Your task to perform on an android device: delete browsing data in the chrome app Image 0: 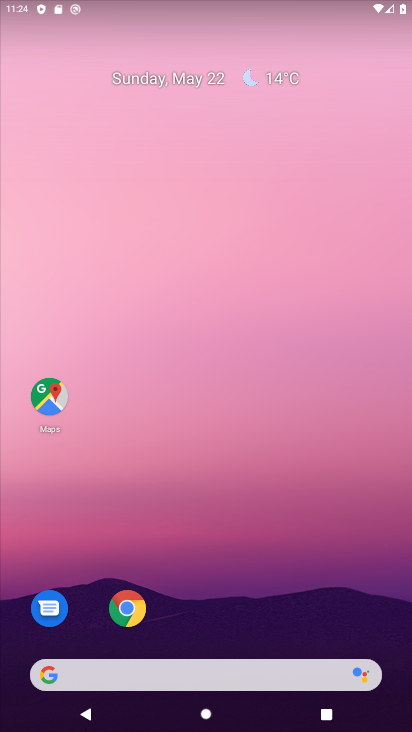
Step 0: drag from (288, 597) to (209, 37)
Your task to perform on an android device: delete browsing data in the chrome app Image 1: 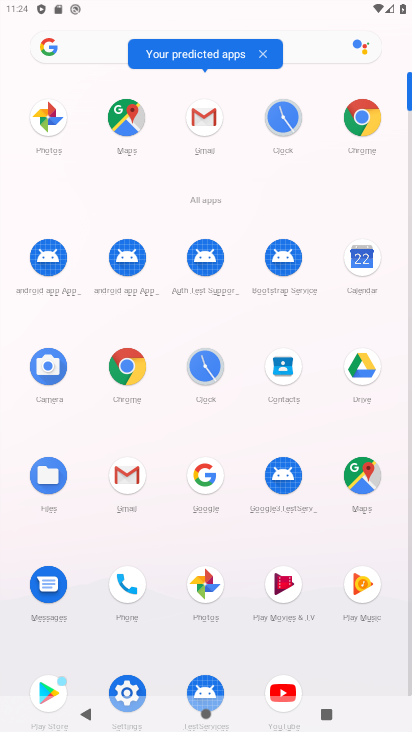
Step 1: click (363, 130)
Your task to perform on an android device: delete browsing data in the chrome app Image 2: 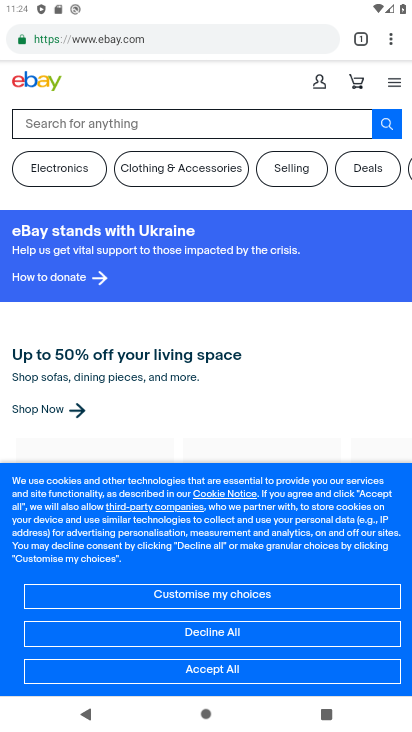
Step 2: click (397, 36)
Your task to perform on an android device: delete browsing data in the chrome app Image 3: 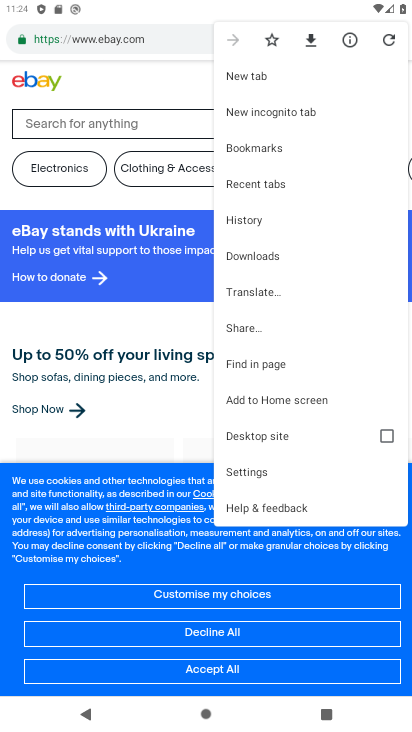
Step 3: click (279, 219)
Your task to perform on an android device: delete browsing data in the chrome app Image 4: 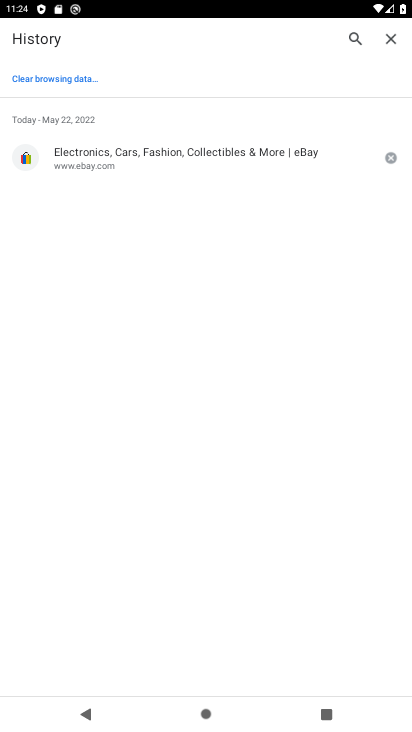
Step 4: click (56, 77)
Your task to perform on an android device: delete browsing data in the chrome app Image 5: 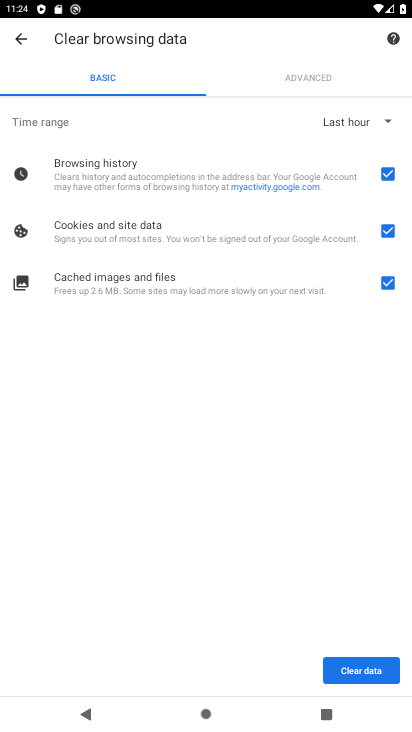
Step 5: click (393, 285)
Your task to perform on an android device: delete browsing data in the chrome app Image 6: 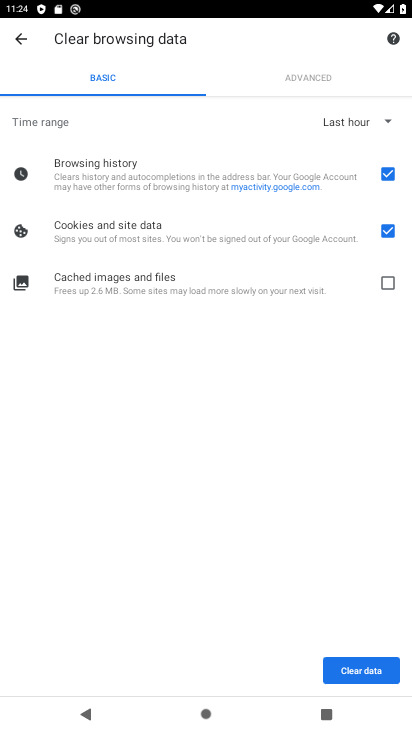
Step 6: click (384, 230)
Your task to perform on an android device: delete browsing data in the chrome app Image 7: 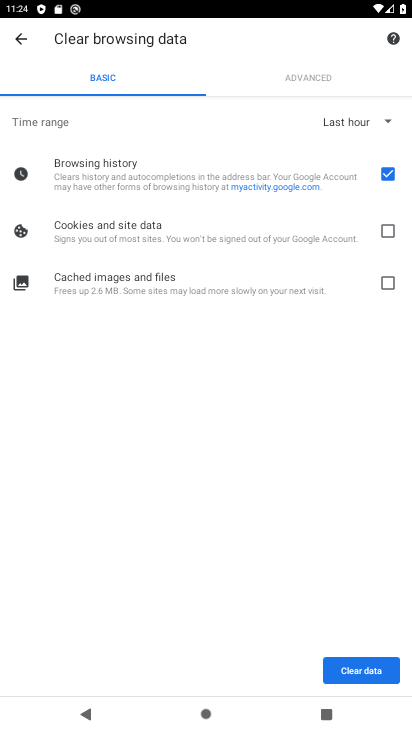
Step 7: click (335, 677)
Your task to perform on an android device: delete browsing data in the chrome app Image 8: 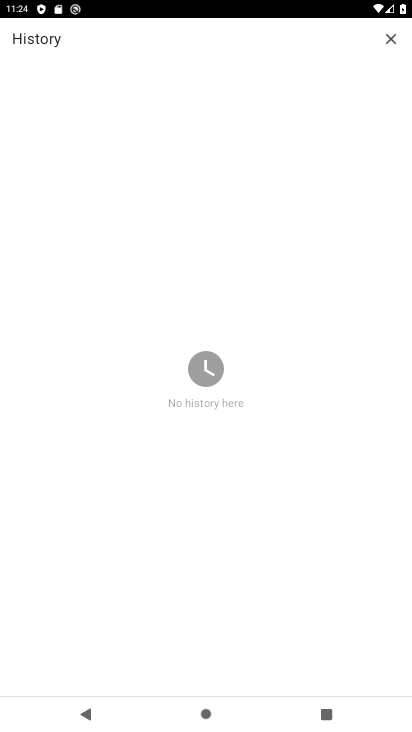
Step 8: task complete